Your task to perform on an android device: turn off translation in the chrome app Image 0: 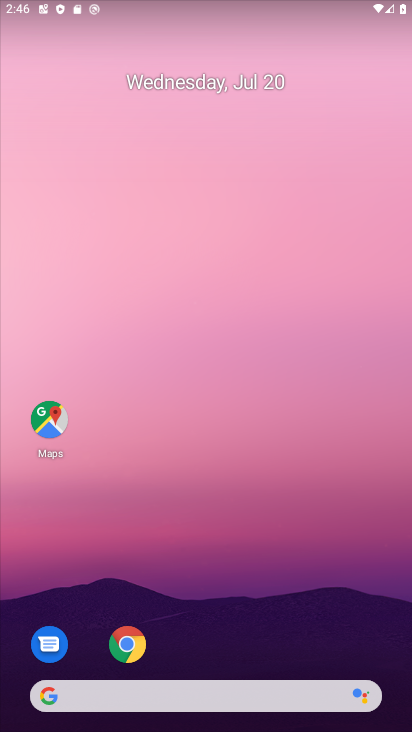
Step 0: click (128, 650)
Your task to perform on an android device: turn off translation in the chrome app Image 1: 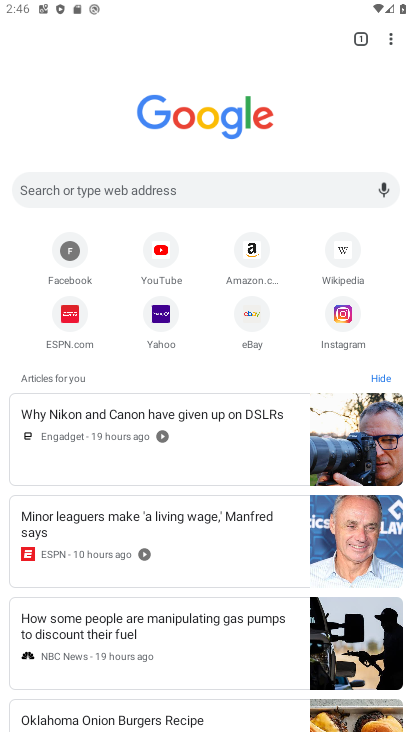
Step 1: click (390, 40)
Your task to perform on an android device: turn off translation in the chrome app Image 2: 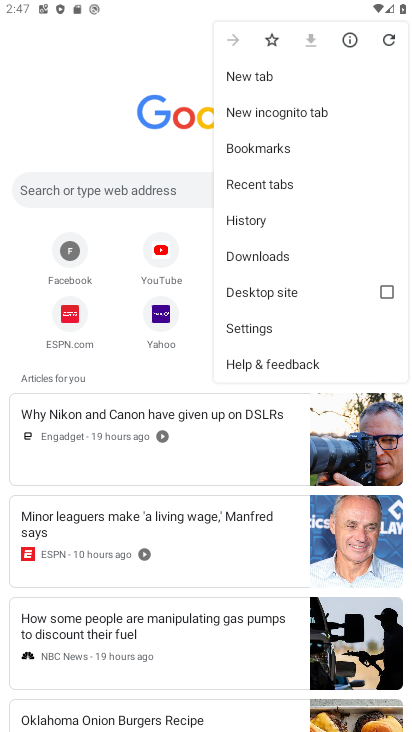
Step 2: click (253, 343)
Your task to perform on an android device: turn off translation in the chrome app Image 3: 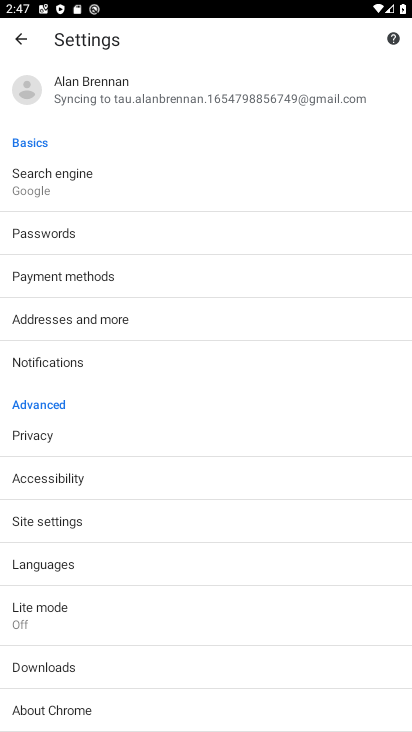
Step 3: click (135, 570)
Your task to perform on an android device: turn off translation in the chrome app Image 4: 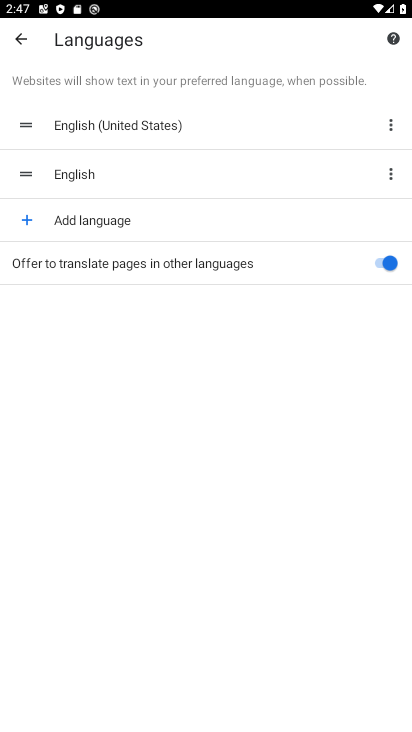
Step 4: click (135, 570)
Your task to perform on an android device: turn off translation in the chrome app Image 5: 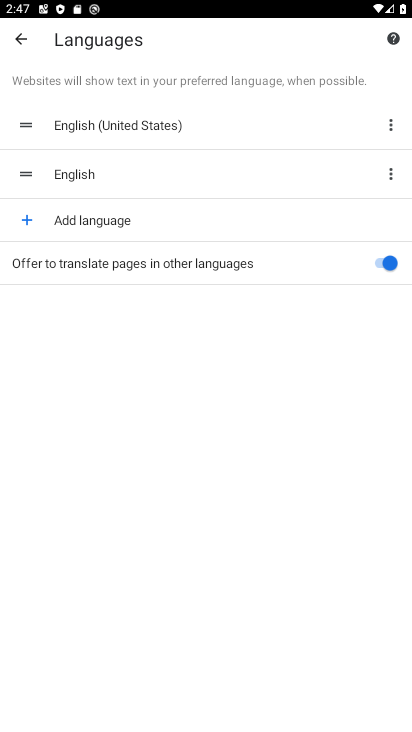
Step 5: click (329, 256)
Your task to perform on an android device: turn off translation in the chrome app Image 6: 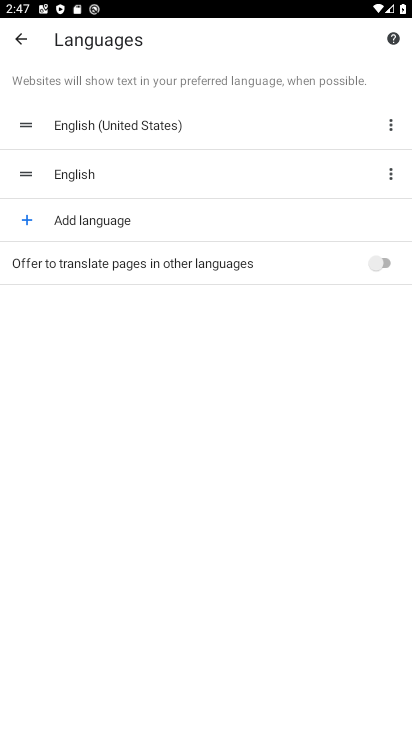
Step 6: task complete